Your task to perform on an android device: open the mobile data screen to see how much data has been used Image 0: 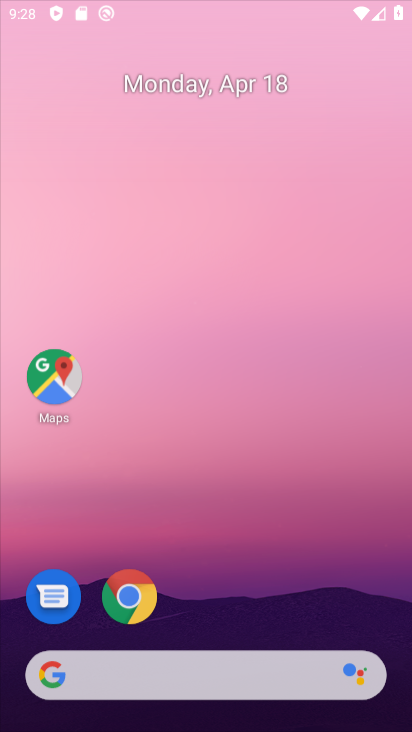
Step 0: drag from (231, 364) to (182, 12)
Your task to perform on an android device: open the mobile data screen to see how much data has been used Image 1: 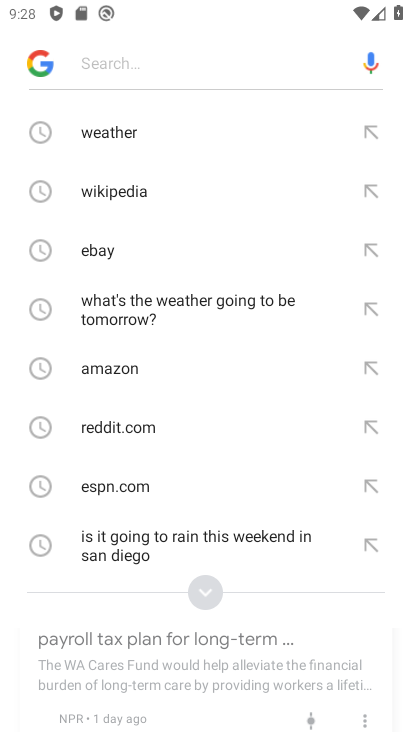
Step 1: press back button
Your task to perform on an android device: open the mobile data screen to see how much data has been used Image 2: 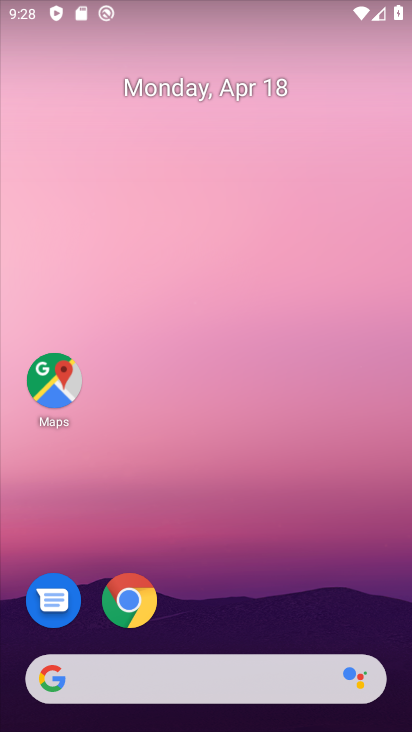
Step 2: drag from (288, 579) to (257, 2)
Your task to perform on an android device: open the mobile data screen to see how much data has been used Image 3: 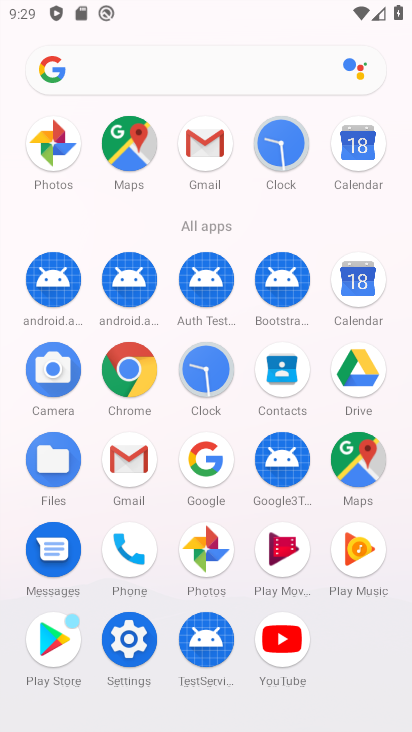
Step 3: click (134, 637)
Your task to perform on an android device: open the mobile data screen to see how much data has been used Image 4: 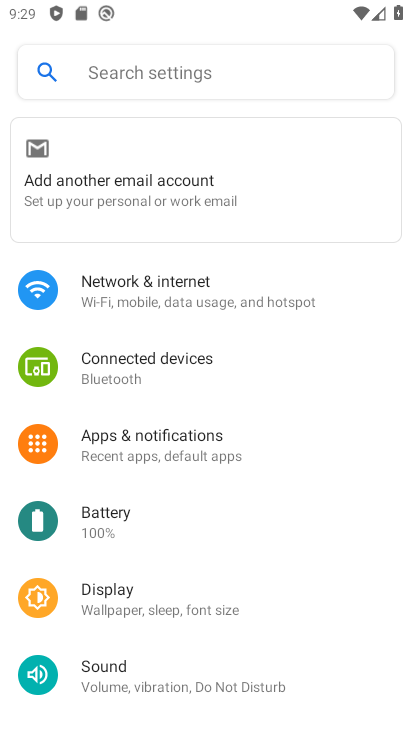
Step 4: click (142, 283)
Your task to perform on an android device: open the mobile data screen to see how much data has been used Image 5: 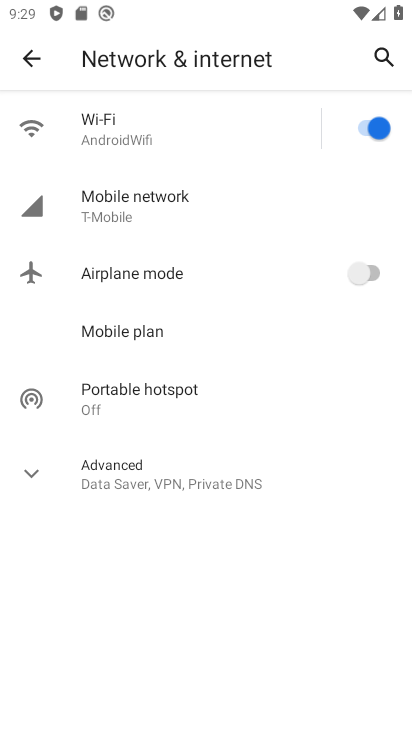
Step 5: click (115, 194)
Your task to perform on an android device: open the mobile data screen to see how much data has been used Image 6: 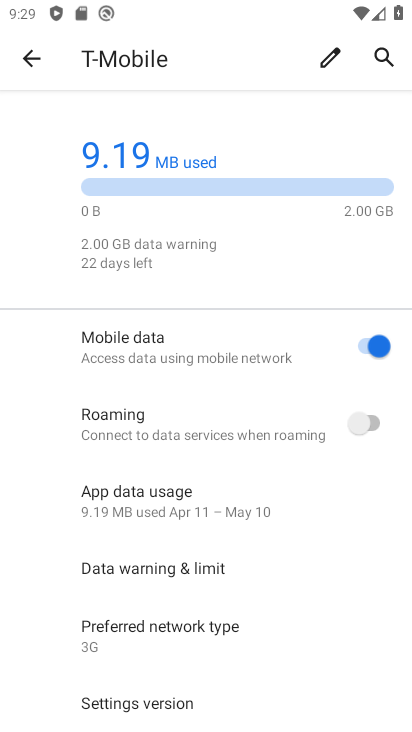
Step 6: task complete